Your task to perform on an android device: Open wifi settings Image 0: 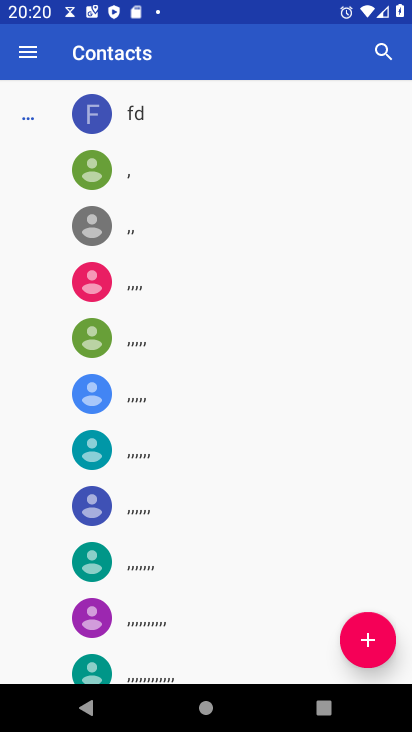
Step 0: press home button
Your task to perform on an android device: Open wifi settings Image 1: 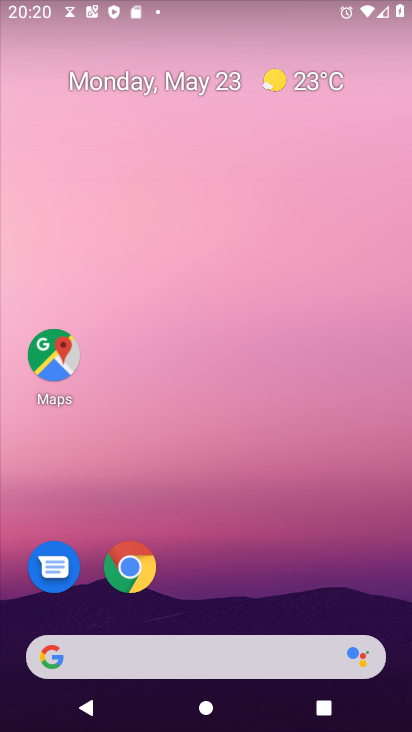
Step 1: drag from (177, 673) to (232, 312)
Your task to perform on an android device: Open wifi settings Image 2: 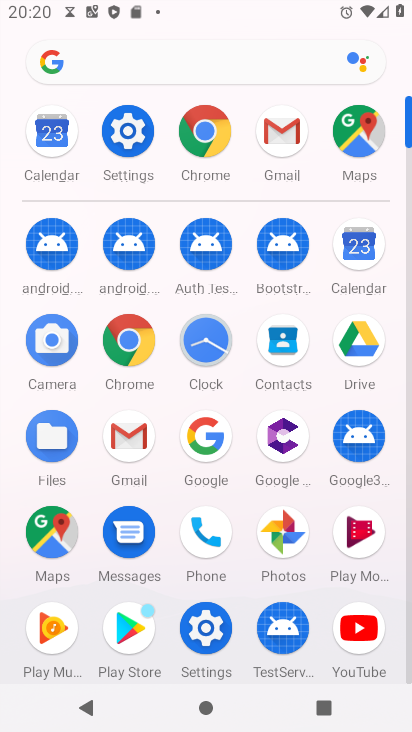
Step 2: click (125, 123)
Your task to perform on an android device: Open wifi settings Image 3: 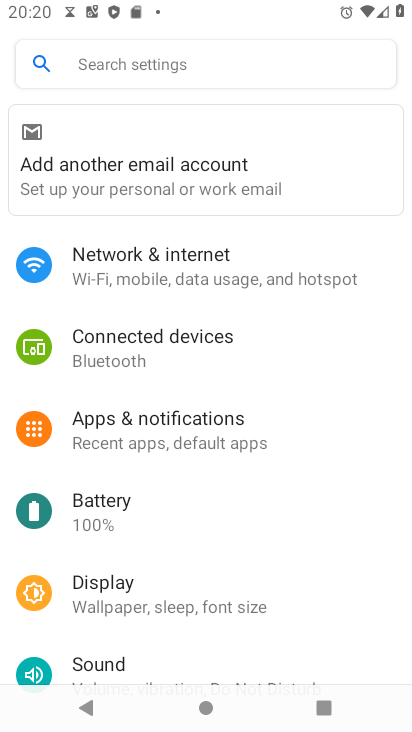
Step 3: click (197, 259)
Your task to perform on an android device: Open wifi settings Image 4: 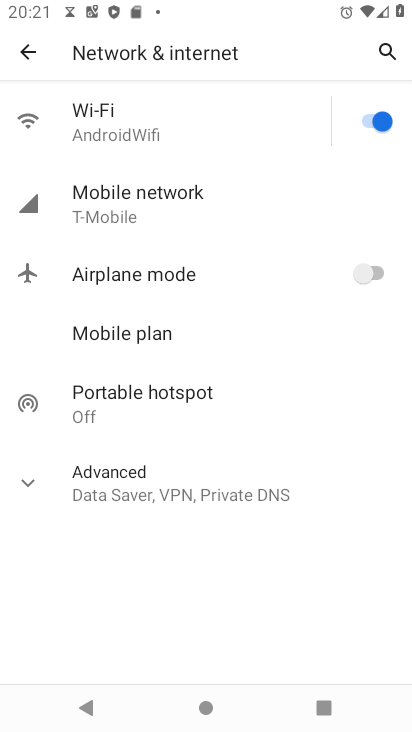
Step 4: click (117, 117)
Your task to perform on an android device: Open wifi settings Image 5: 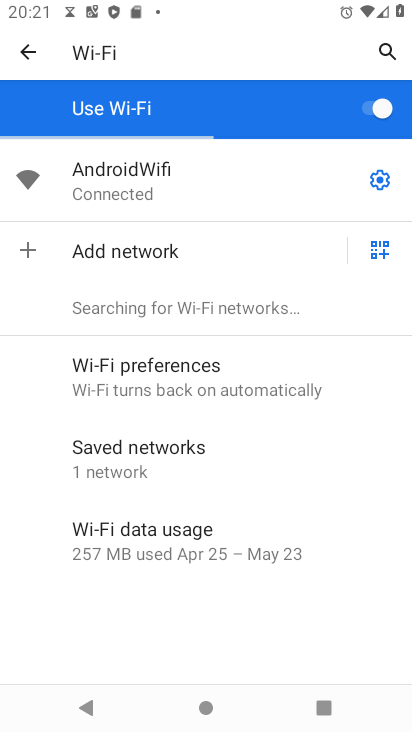
Step 5: task complete